Your task to perform on an android device: Open calendar and show me the second week of next month Image 0: 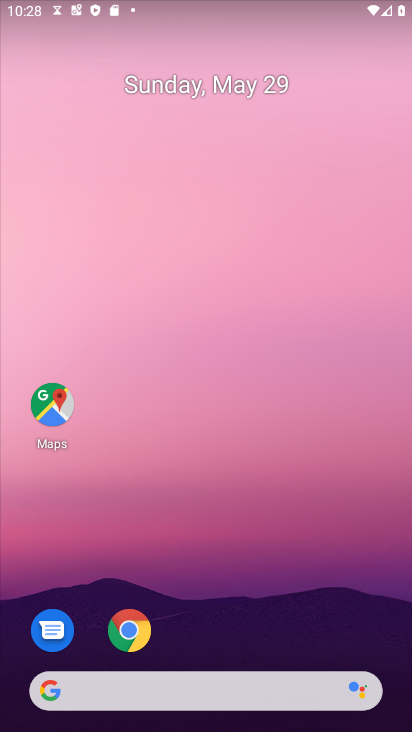
Step 0: click (226, 88)
Your task to perform on an android device: Open calendar and show me the second week of next month Image 1: 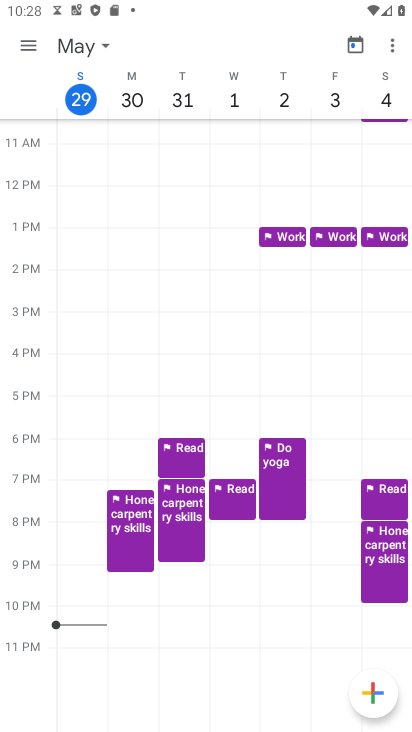
Step 1: click (97, 45)
Your task to perform on an android device: Open calendar and show me the second week of next month Image 2: 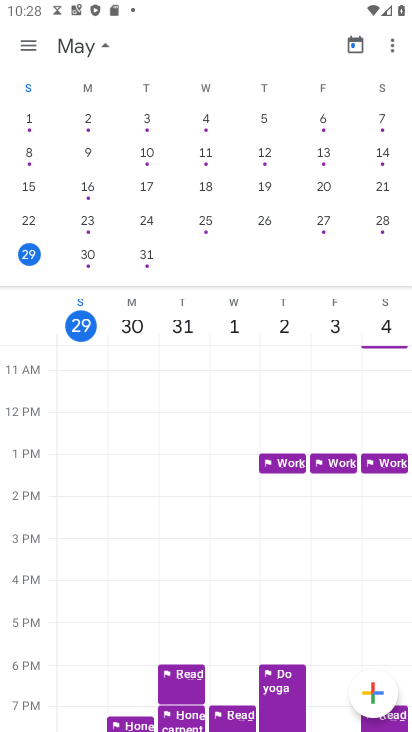
Step 2: drag from (352, 260) to (0, 247)
Your task to perform on an android device: Open calendar and show me the second week of next month Image 3: 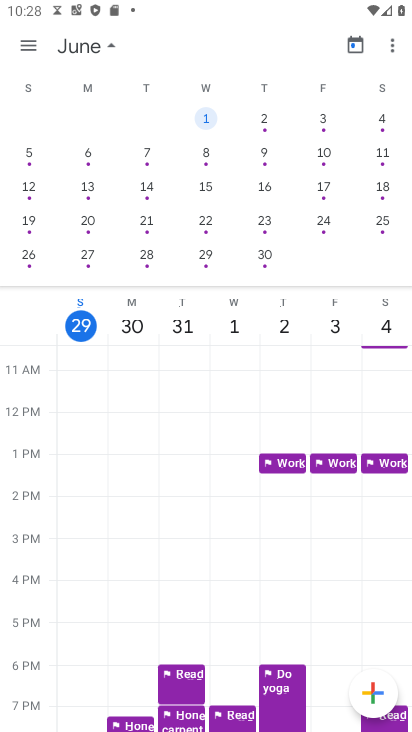
Step 3: click (211, 149)
Your task to perform on an android device: Open calendar and show me the second week of next month Image 4: 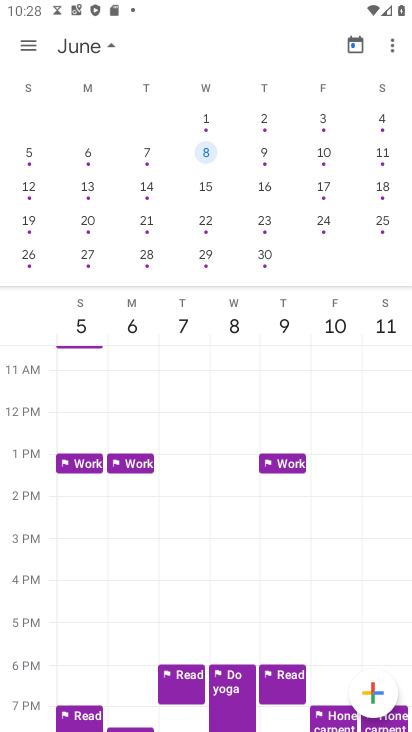
Step 4: task complete